Your task to perform on an android device: What's the weather going to be this weekend? Image 0: 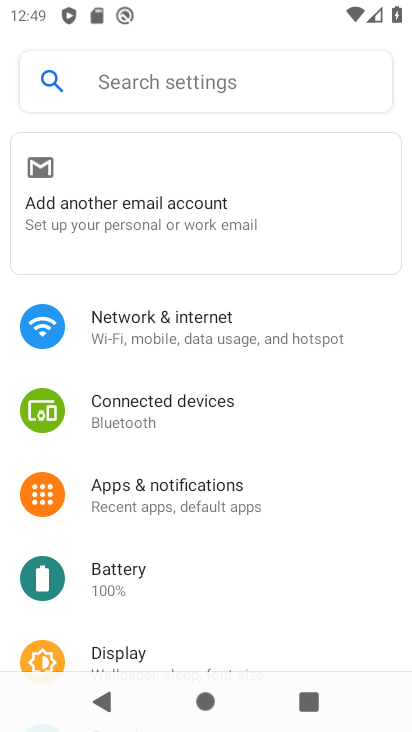
Step 0: press home button
Your task to perform on an android device: What's the weather going to be this weekend? Image 1: 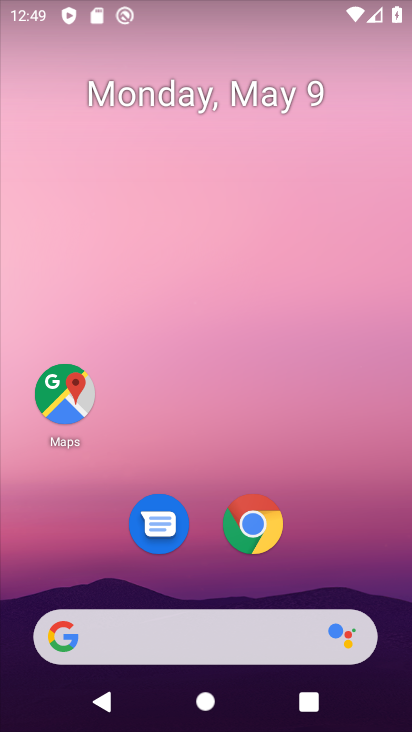
Step 1: click (173, 646)
Your task to perform on an android device: What's the weather going to be this weekend? Image 2: 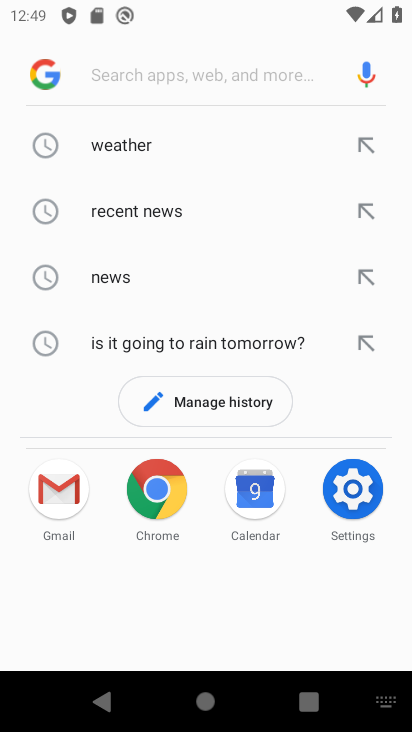
Step 2: click (89, 135)
Your task to perform on an android device: What's the weather going to be this weekend? Image 3: 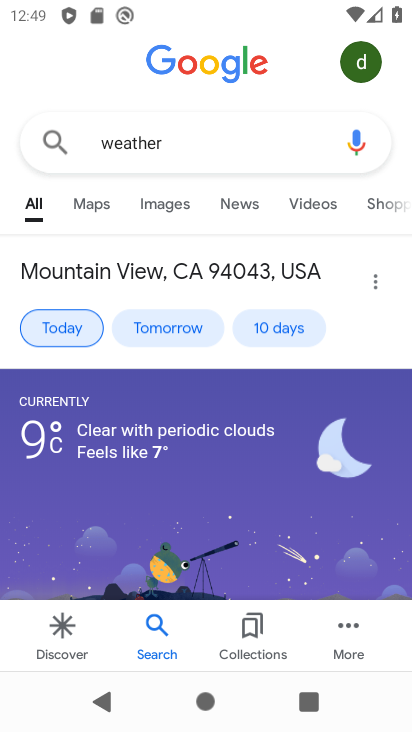
Step 3: click (285, 326)
Your task to perform on an android device: What's the weather going to be this weekend? Image 4: 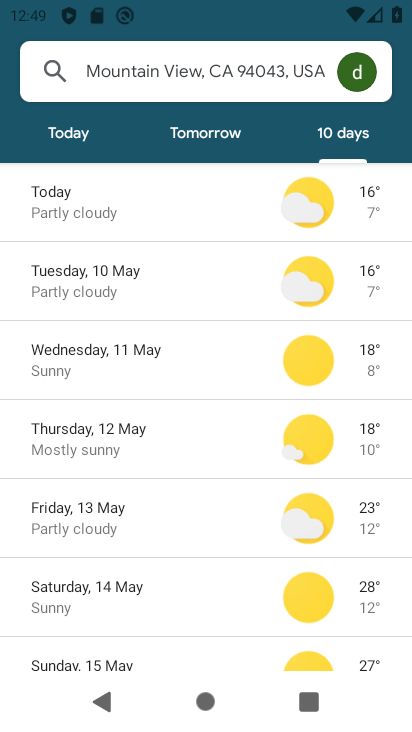
Step 4: click (106, 595)
Your task to perform on an android device: What's the weather going to be this weekend? Image 5: 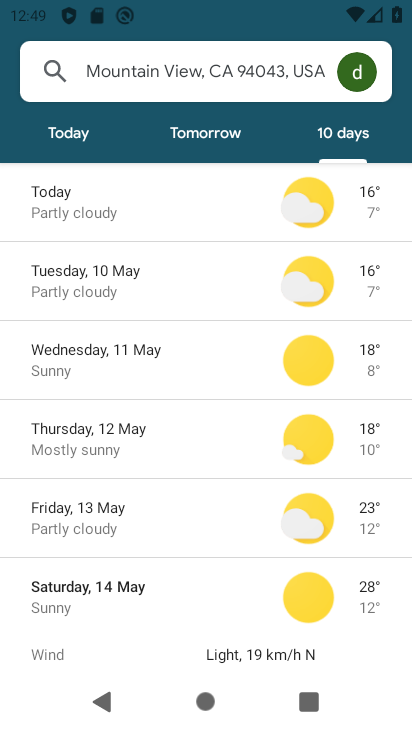
Step 5: click (142, 586)
Your task to perform on an android device: What's the weather going to be this weekend? Image 6: 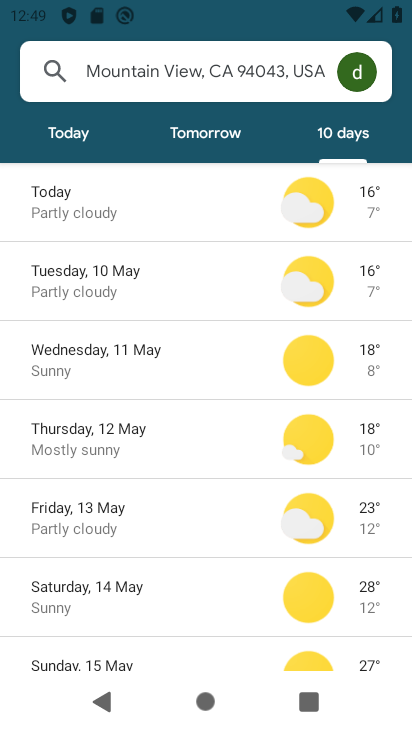
Step 6: click (111, 586)
Your task to perform on an android device: What's the weather going to be this weekend? Image 7: 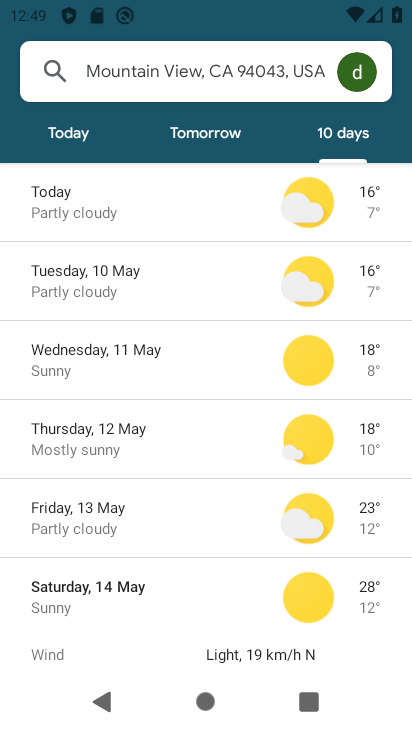
Step 7: task complete